Your task to perform on an android device: Open display settings Image 0: 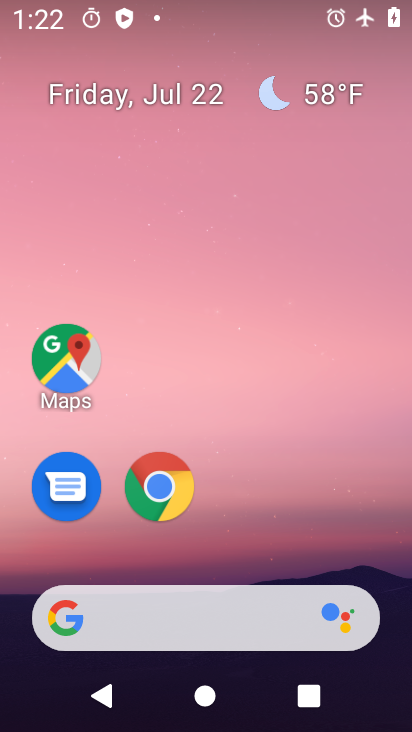
Step 0: drag from (351, 531) to (383, 49)
Your task to perform on an android device: Open display settings Image 1: 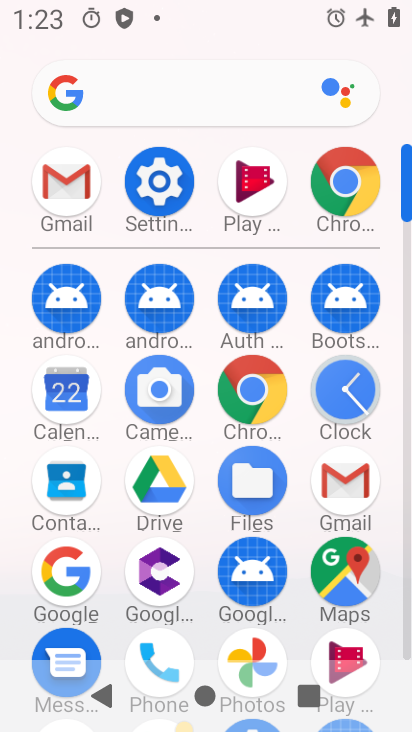
Step 1: click (162, 191)
Your task to perform on an android device: Open display settings Image 2: 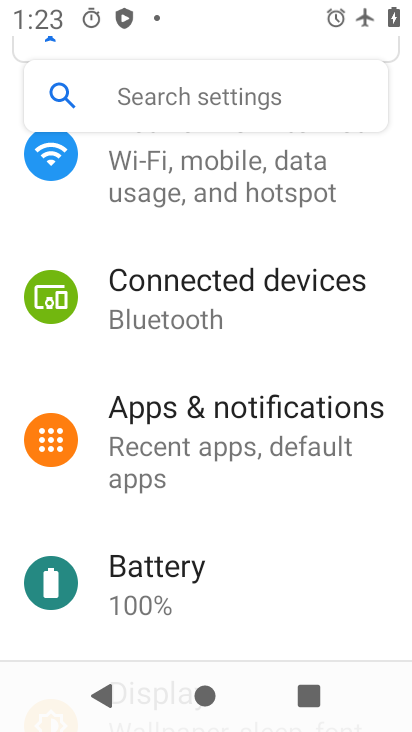
Step 2: drag from (379, 228) to (385, 317)
Your task to perform on an android device: Open display settings Image 3: 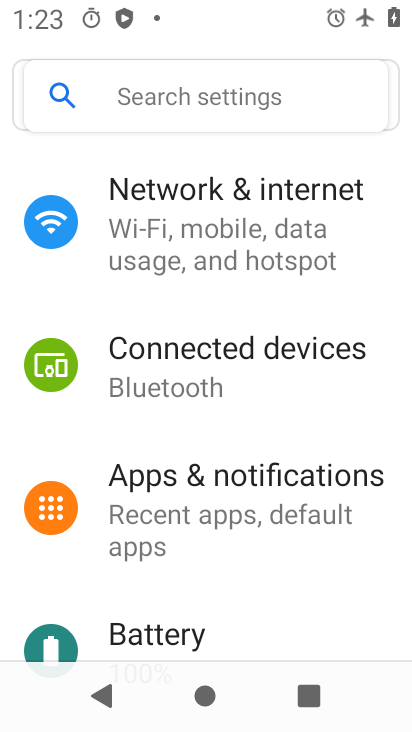
Step 3: drag from (375, 418) to (374, 340)
Your task to perform on an android device: Open display settings Image 4: 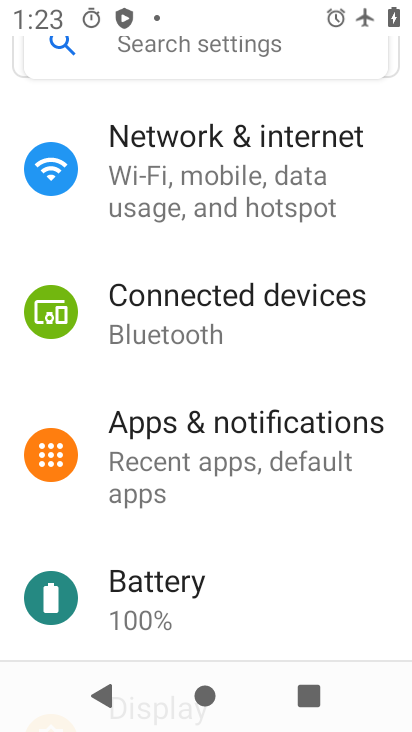
Step 4: drag from (378, 450) to (378, 373)
Your task to perform on an android device: Open display settings Image 5: 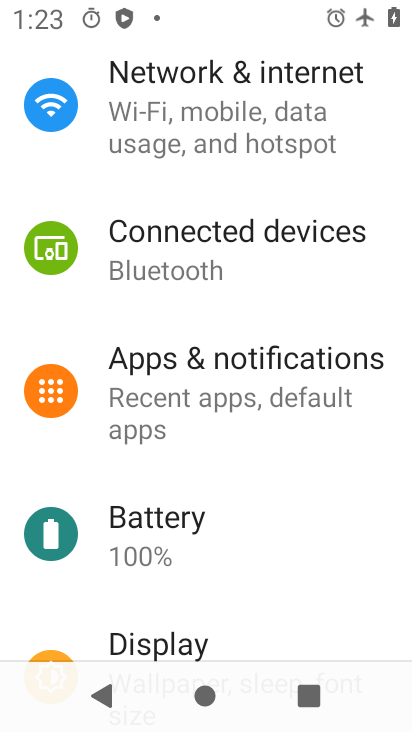
Step 5: drag from (379, 495) to (369, 418)
Your task to perform on an android device: Open display settings Image 6: 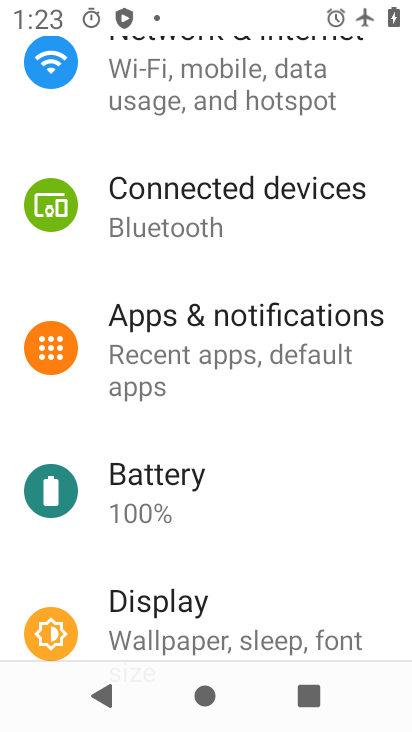
Step 6: drag from (367, 476) to (361, 399)
Your task to perform on an android device: Open display settings Image 7: 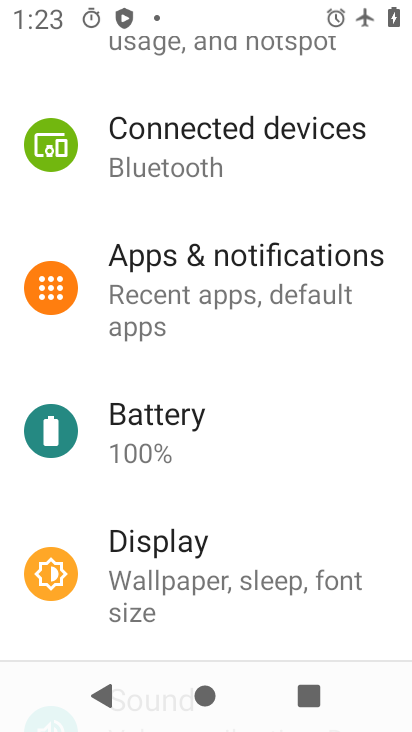
Step 7: drag from (359, 458) to (359, 388)
Your task to perform on an android device: Open display settings Image 8: 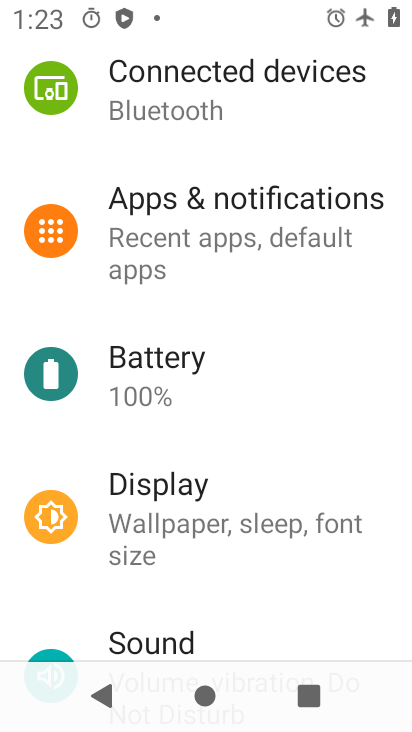
Step 8: drag from (367, 441) to (353, 345)
Your task to perform on an android device: Open display settings Image 9: 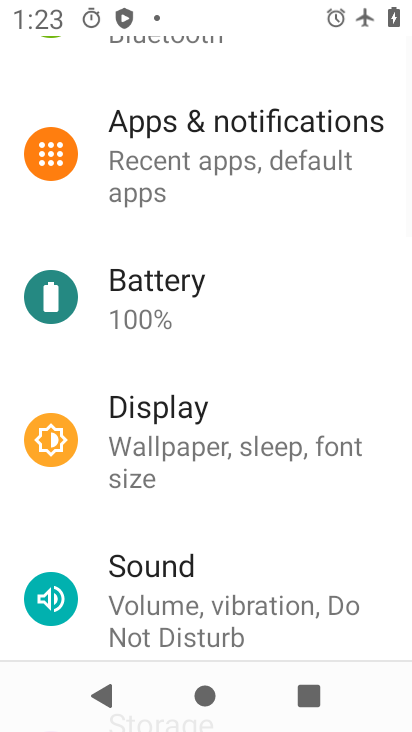
Step 9: drag from (336, 411) to (325, 311)
Your task to perform on an android device: Open display settings Image 10: 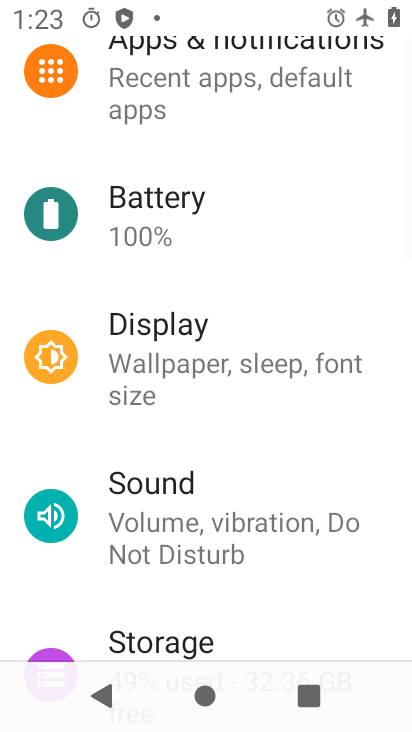
Step 10: drag from (311, 422) to (312, 334)
Your task to perform on an android device: Open display settings Image 11: 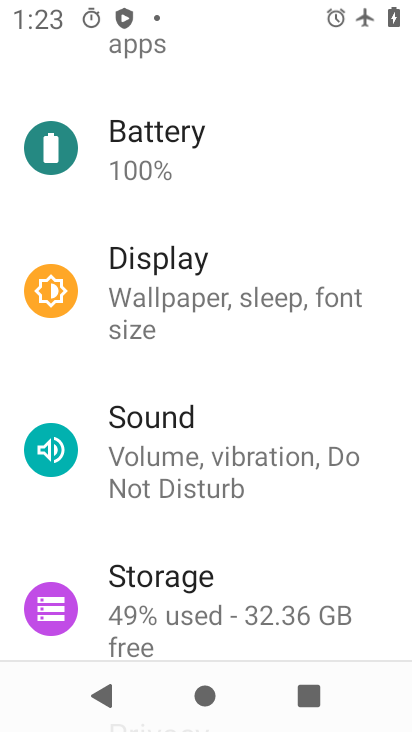
Step 11: click (297, 311)
Your task to perform on an android device: Open display settings Image 12: 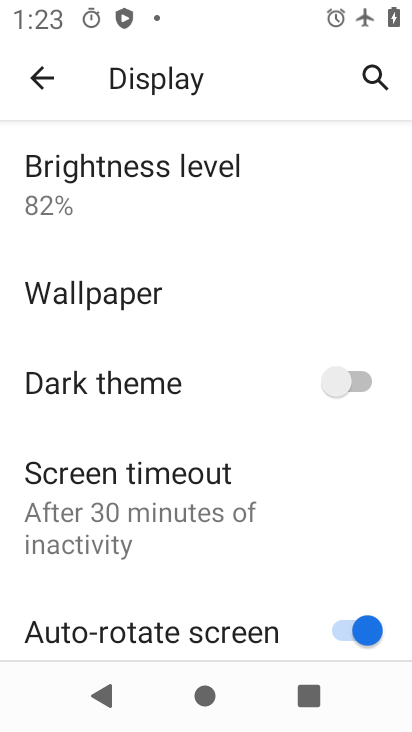
Step 12: drag from (258, 472) to (256, 393)
Your task to perform on an android device: Open display settings Image 13: 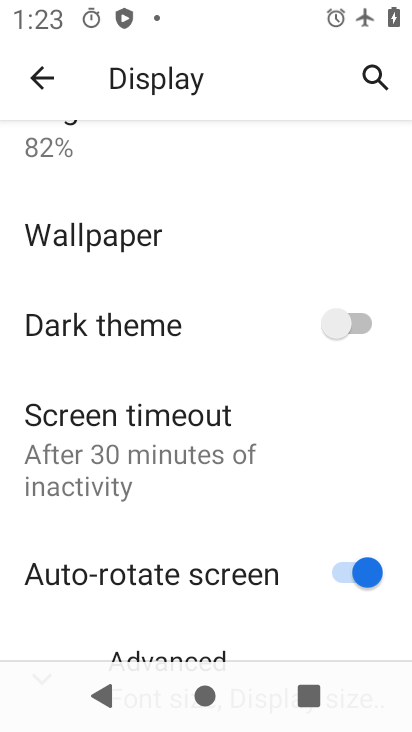
Step 13: drag from (257, 486) to (256, 374)
Your task to perform on an android device: Open display settings Image 14: 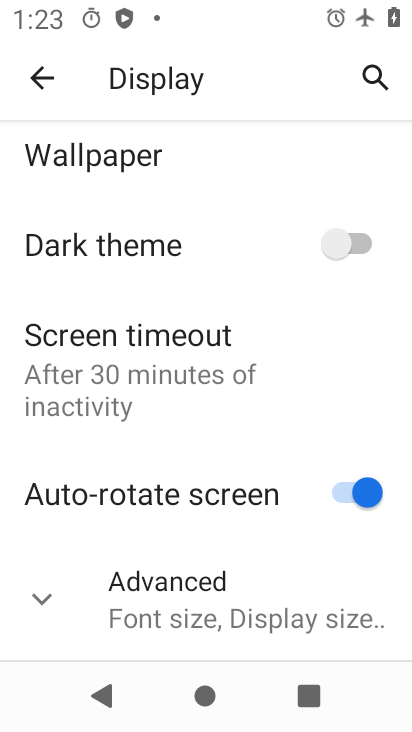
Step 14: click (257, 576)
Your task to perform on an android device: Open display settings Image 15: 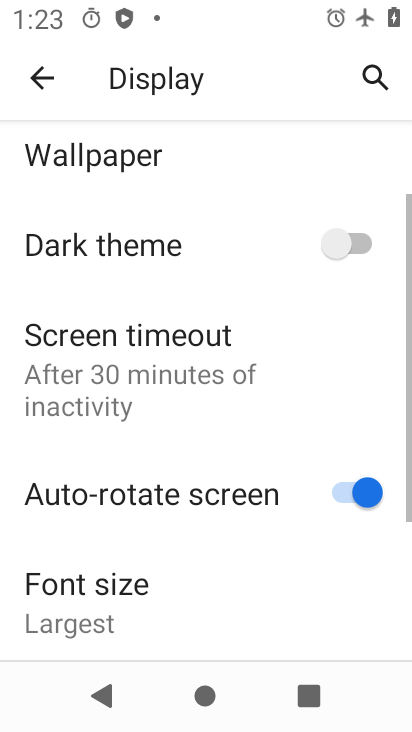
Step 15: task complete